Your task to perform on an android device: remove spam from my inbox in the gmail app Image 0: 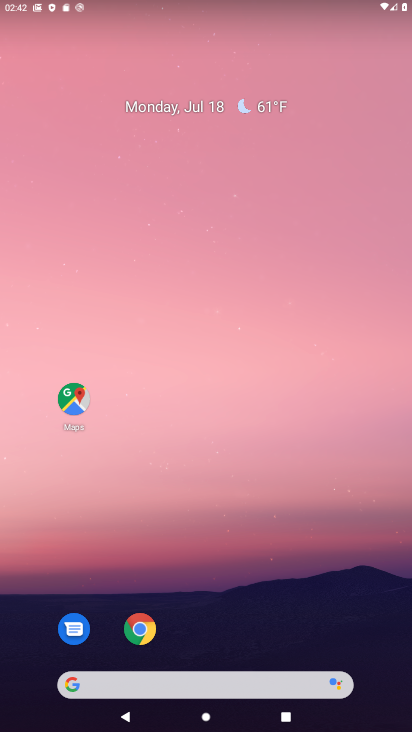
Step 0: drag from (224, 683) to (317, 200)
Your task to perform on an android device: remove spam from my inbox in the gmail app Image 1: 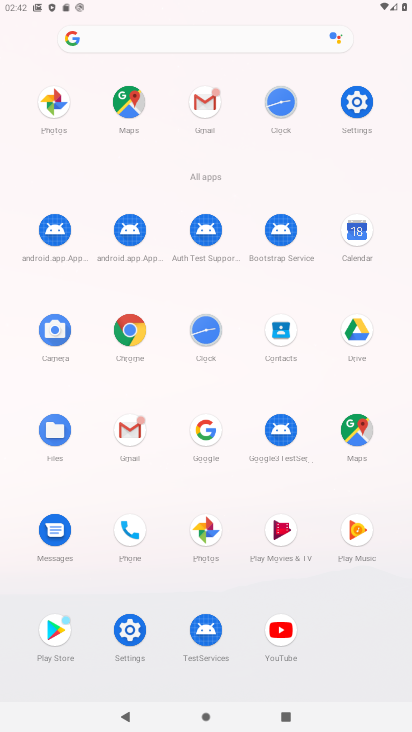
Step 1: click (126, 425)
Your task to perform on an android device: remove spam from my inbox in the gmail app Image 2: 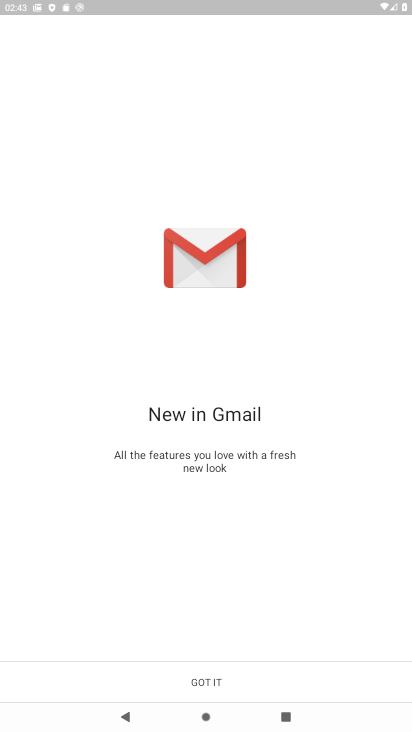
Step 2: click (214, 681)
Your task to perform on an android device: remove spam from my inbox in the gmail app Image 3: 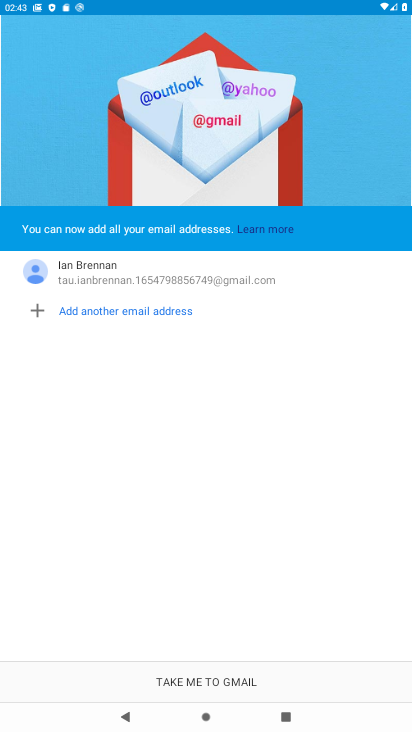
Step 3: click (245, 680)
Your task to perform on an android device: remove spam from my inbox in the gmail app Image 4: 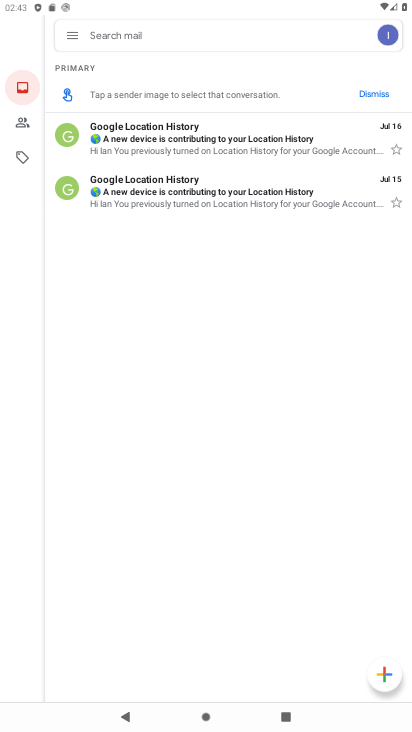
Step 4: click (67, 39)
Your task to perform on an android device: remove spam from my inbox in the gmail app Image 5: 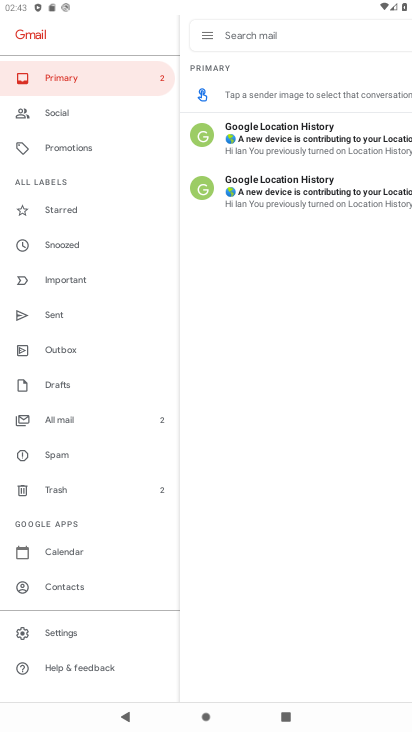
Step 5: click (85, 448)
Your task to perform on an android device: remove spam from my inbox in the gmail app Image 6: 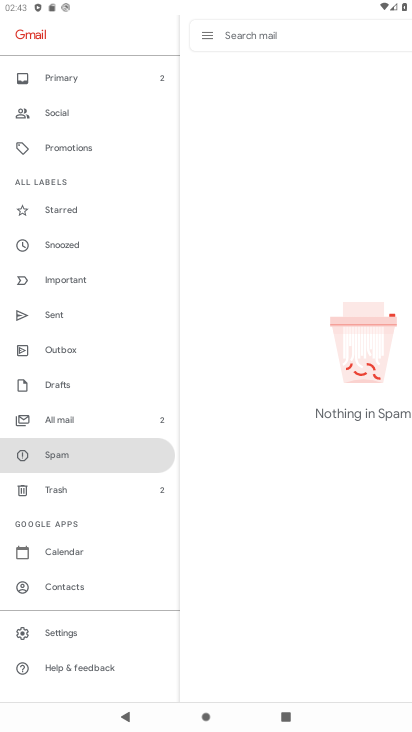
Step 6: task complete